Your task to perform on an android device: Show me recent news Image 0: 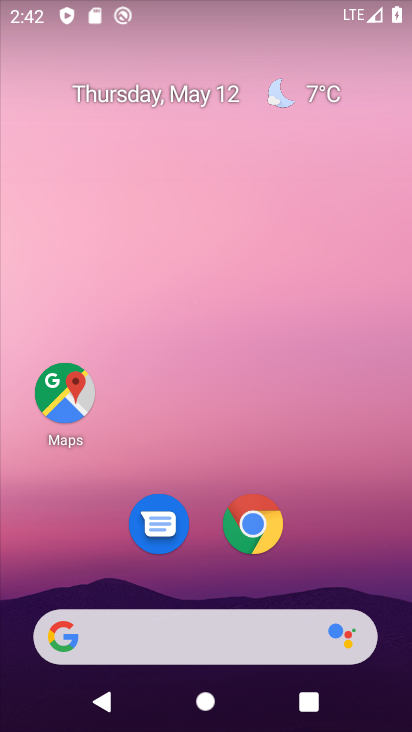
Step 0: click (257, 629)
Your task to perform on an android device: Show me recent news Image 1: 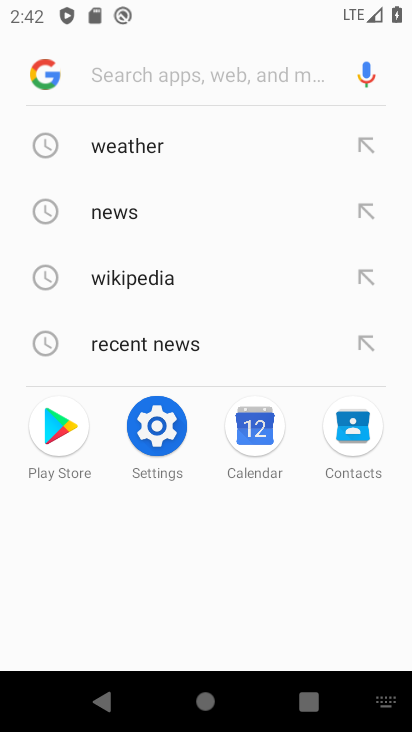
Step 1: click (89, 335)
Your task to perform on an android device: Show me recent news Image 2: 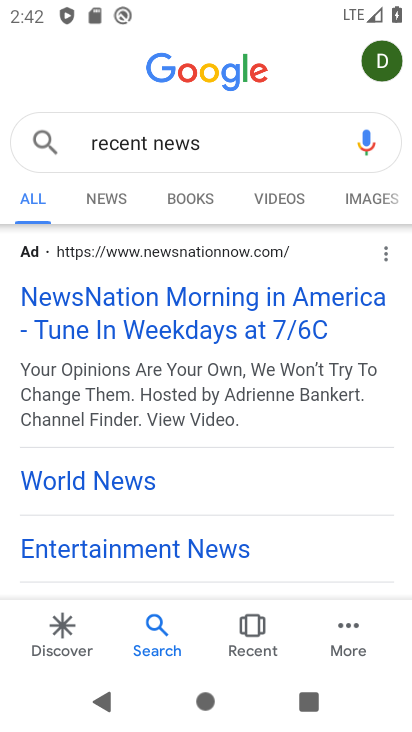
Step 2: click (99, 184)
Your task to perform on an android device: Show me recent news Image 3: 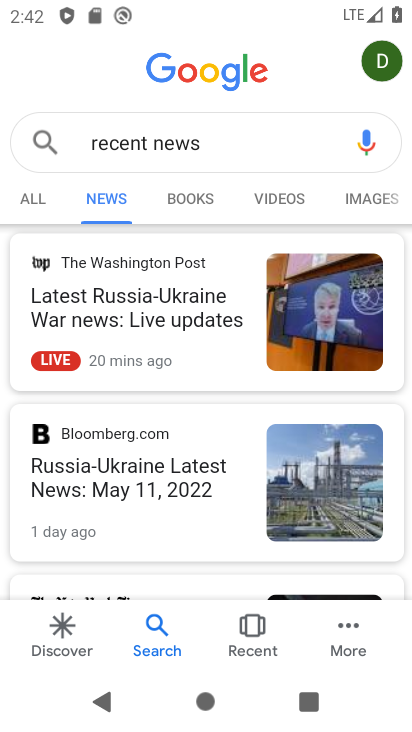
Step 3: task complete